Your task to perform on an android device: set the stopwatch Image 0: 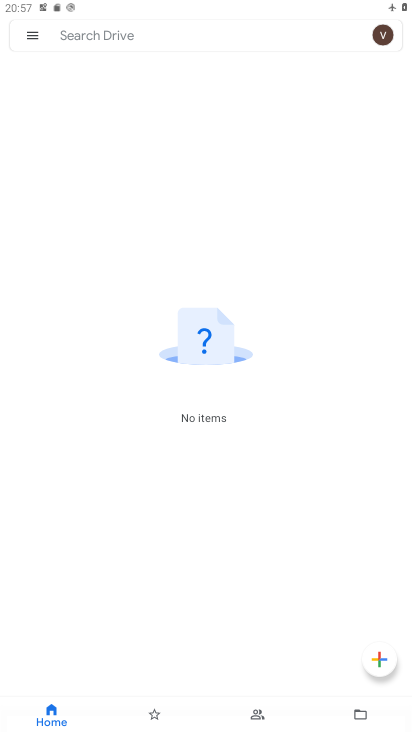
Step 0: press home button
Your task to perform on an android device: set the stopwatch Image 1: 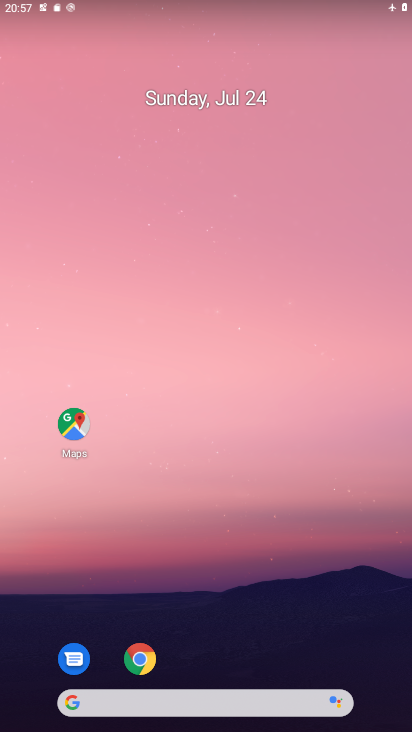
Step 1: drag from (223, 729) to (224, 323)
Your task to perform on an android device: set the stopwatch Image 2: 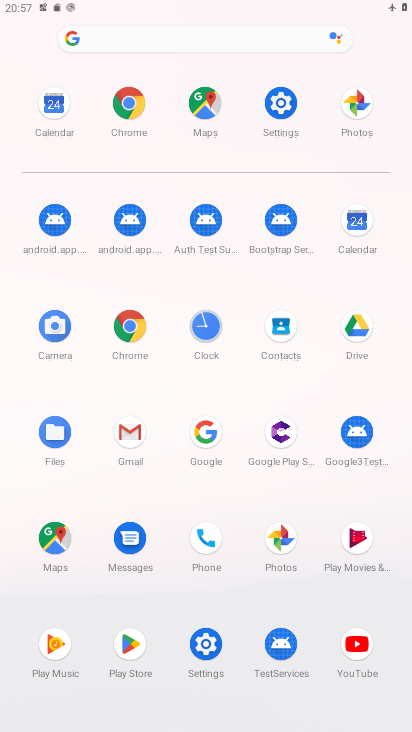
Step 2: click (212, 330)
Your task to perform on an android device: set the stopwatch Image 3: 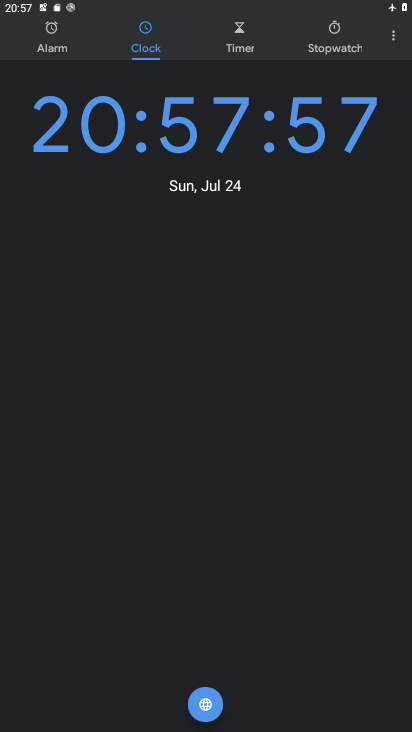
Step 3: click (332, 37)
Your task to perform on an android device: set the stopwatch Image 4: 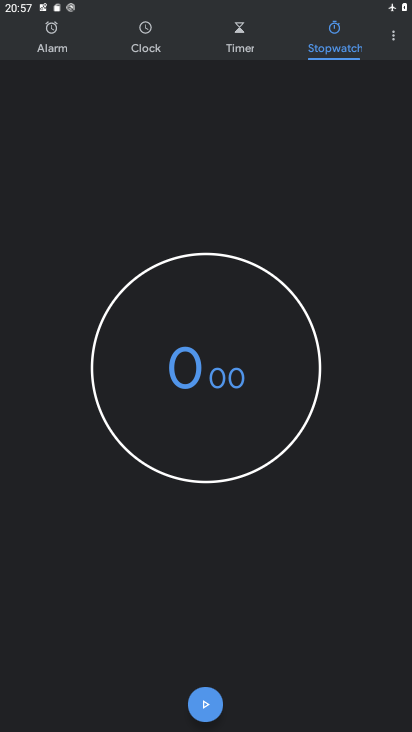
Step 4: click (220, 389)
Your task to perform on an android device: set the stopwatch Image 5: 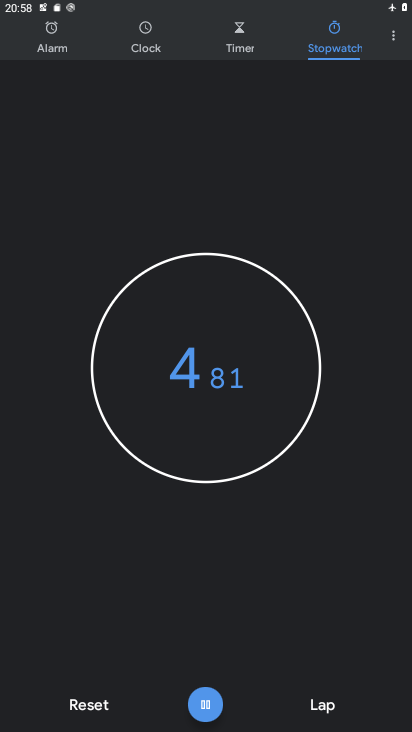
Step 5: type "878787"
Your task to perform on an android device: set the stopwatch Image 6: 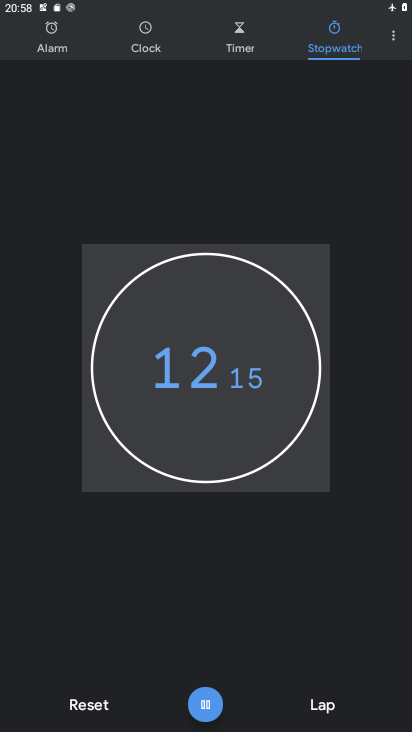
Step 6: task complete